Your task to perform on an android device: visit the assistant section in the google photos Image 0: 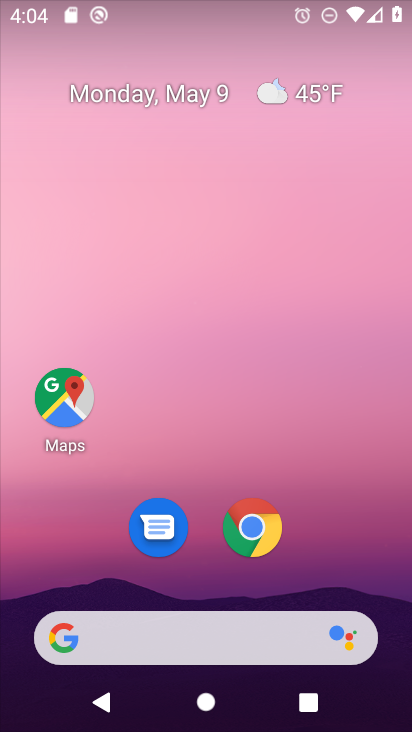
Step 0: drag from (388, 571) to (335, 38)
Your task to perform on an android device: visit the assistant section in the google photos Image 1: 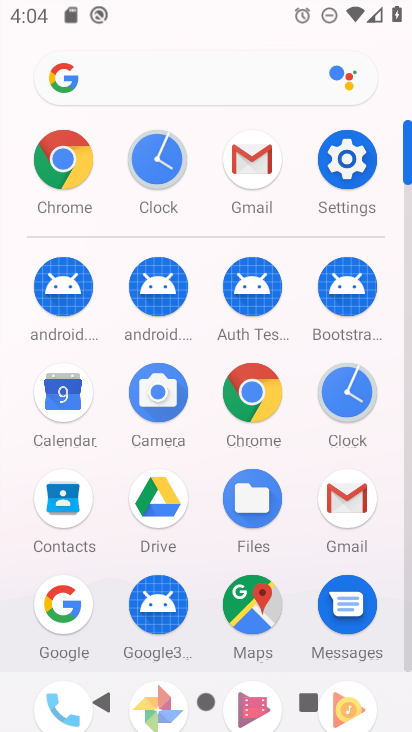
Step 1: click (409, 657)
Your task to perform on an android device: visit the assistant section in the google photos Image 2: 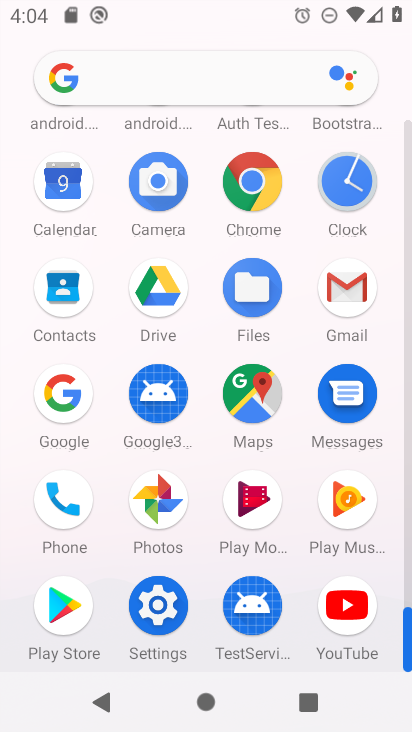
Step 2: click (147, 486)
Your task to perform on an android device: visit the assistant section in the google photos Image 3: 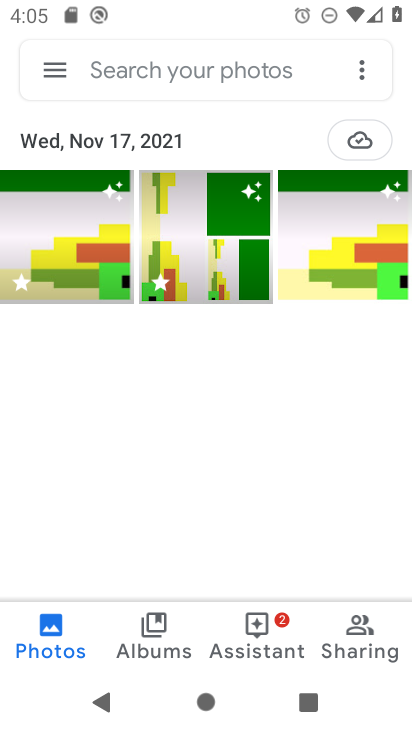
Step 3: click (239, 633)
Your task to perform on an android device: visit the assistant section in the google photos Image 4: 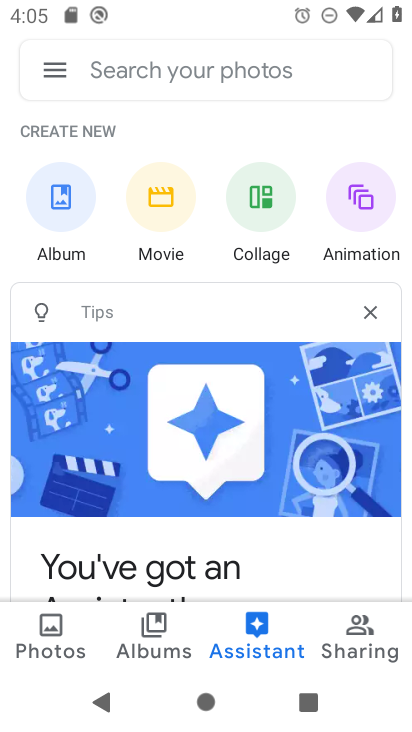
Step 4: task complete